Your task to perform on an android device: visit the assistant section in the google photos Image 0: 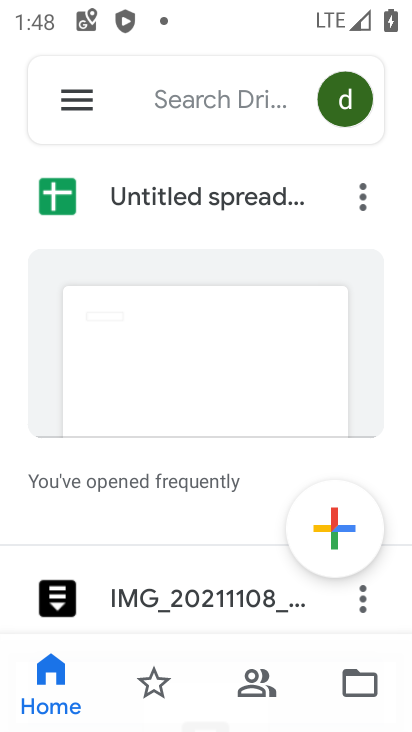
Step 0: press home button
Your task to perform on an android device: visit the assistant section in the google photos Image 1: 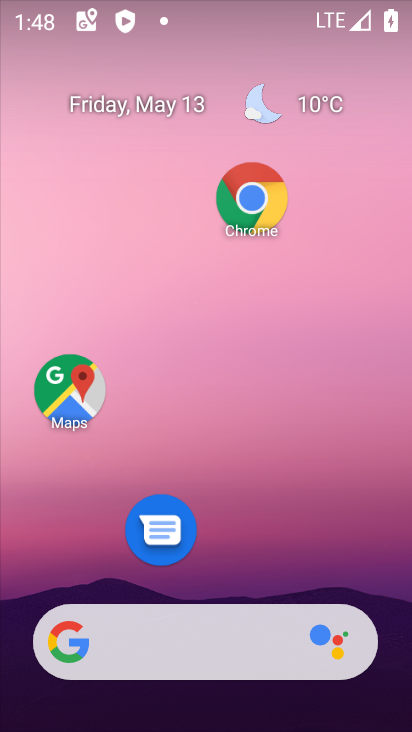
Step 1: drag from (211, 573) to (3, 229)
Your task to perform on an android device: visit the assistant section in the google photos Image 2: 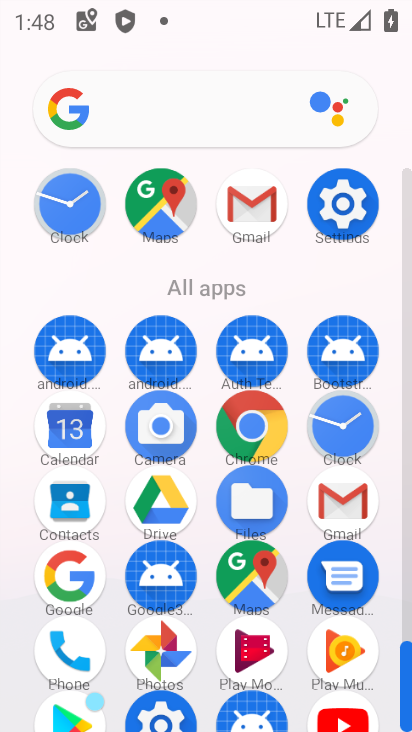
Step 2: click (154, 642)
Your task to perform on an android device: visit the assistant section in the google photos Image 3: 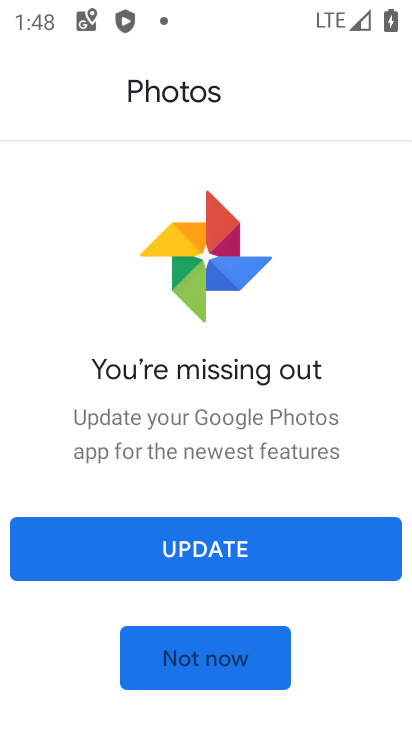
Step 3: click (179, 659)
Your task to perform on an android device: visit the assistant section in the google photos Image 4: 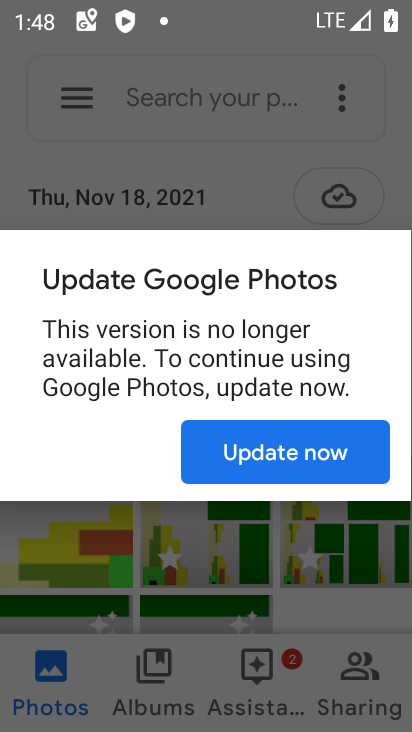
Step 4: click (301, 452)
Your task to perform on an android device: visit the assistant section in the google photos Image 5: 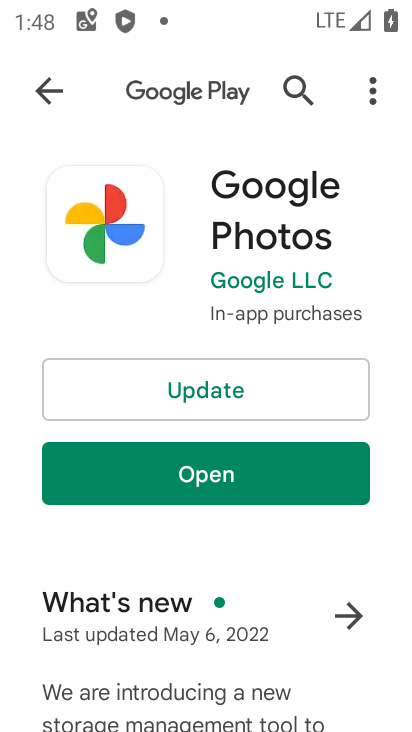
Step 5: click (288, 456)
Your task to perform on an android device: visit the assistant section in the google photos Image 6: 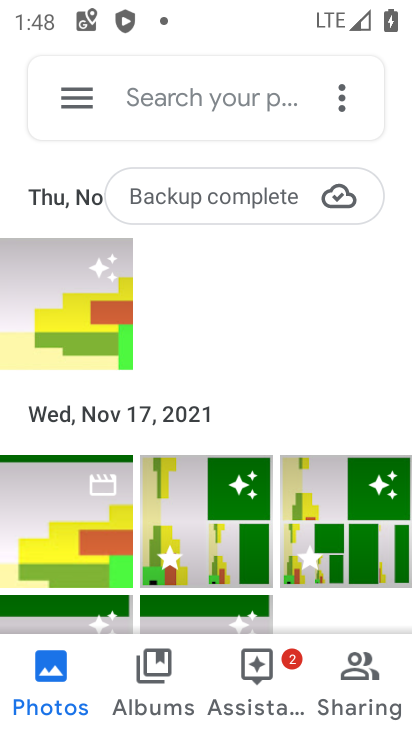
Step 6: click (248, 659)
Your task to perform on an android device: visit the assistant section in the google photos Image 7: 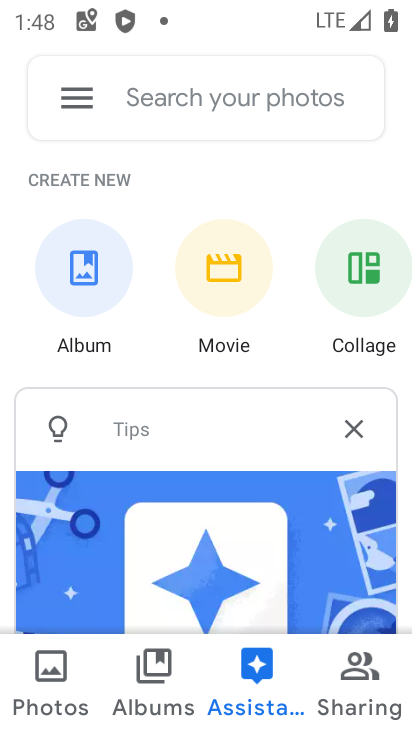
Step 7: task complete